Your task to perform on an android device: Open Wikipedia Image 0: 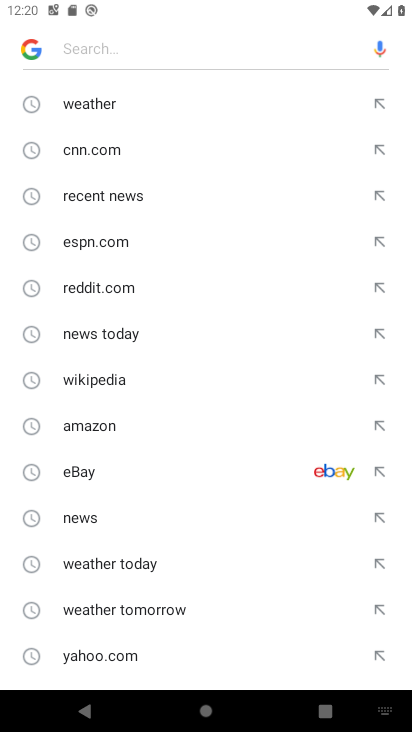
Step 0: press home button
Your task to perform on an android device: Open Wikipedia Image 1: 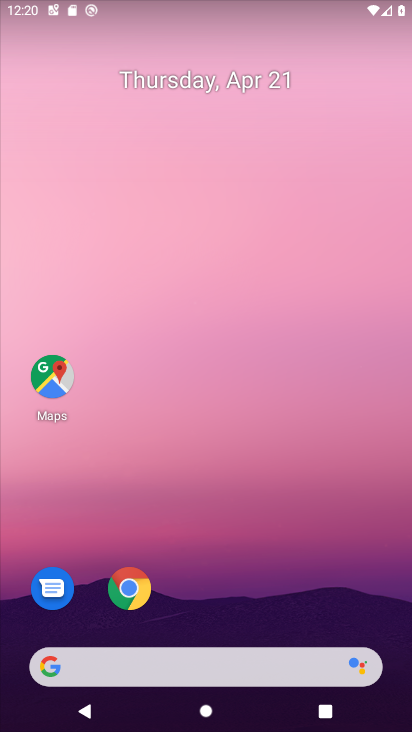
Step 1: click (131, 580)
Your task to perform on an android device: Open Wikipedia Image 2: 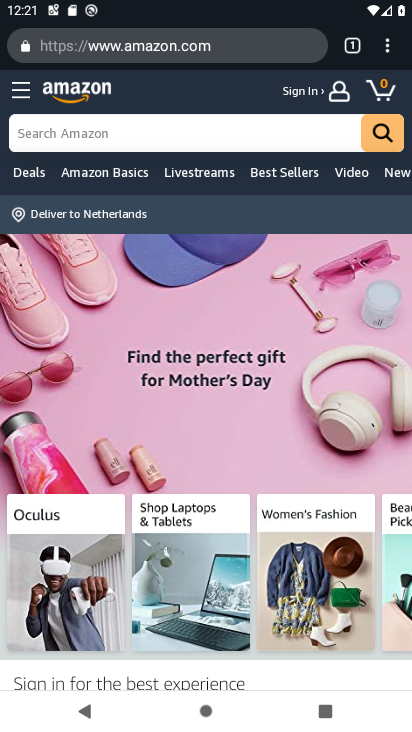
Step 2: click (351, 46)
Your task to perform on an android device: Open Wikipedia Image 3: 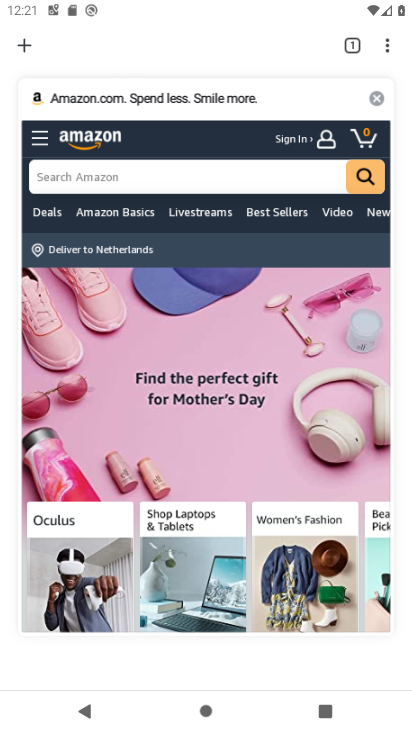
Step 3: click (376, 96)
Your task to perform on an android device: Open Wikipedia Image 4: 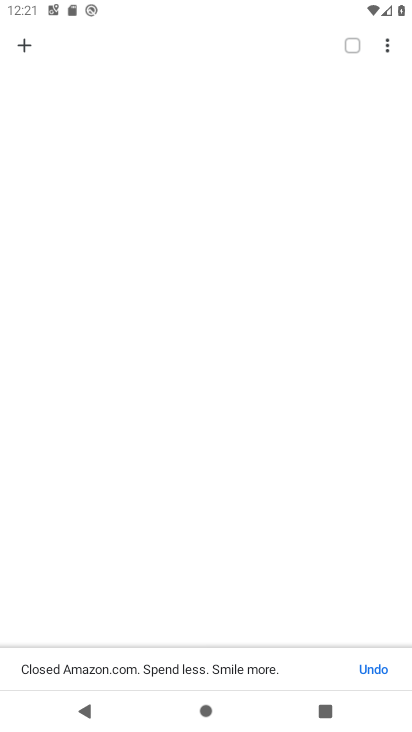
Step 4: click (27, 41)
Your task to perform on an android device: Open Wikipedia Image 5: 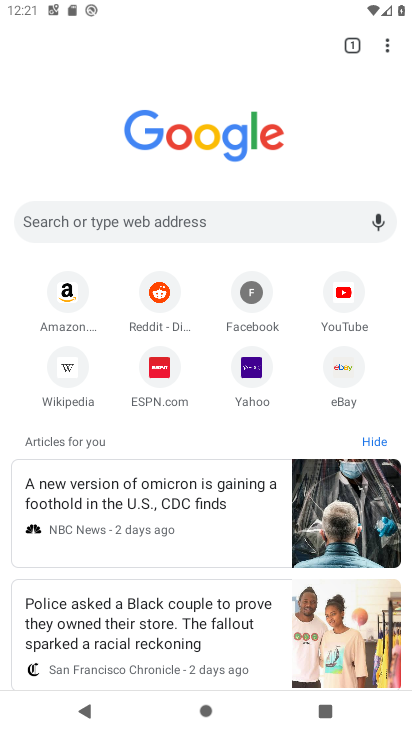
Step 5: click (67, 362)
Your task to perform on an android device: Open Wikipedia Image 6: 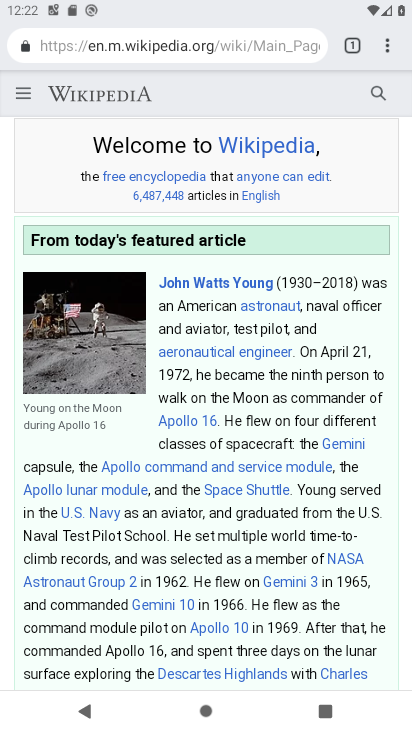
Step 6: task complete